Your task to perform on an android device: add a contact in the contacts app Image 0: 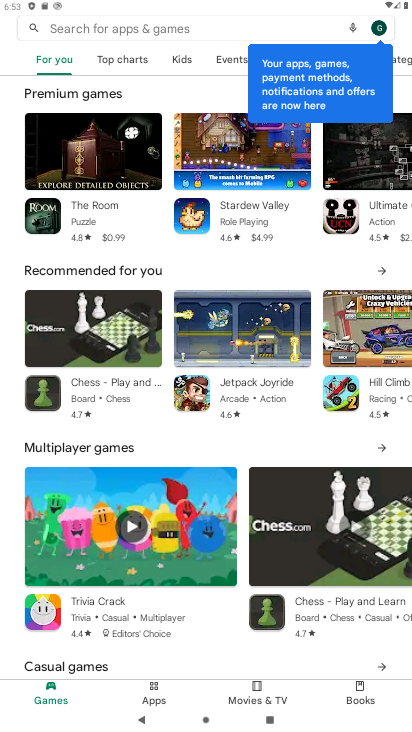
Step 0: press home button
Your task to perform on an android device: add a contact in the contacts app Image 1: 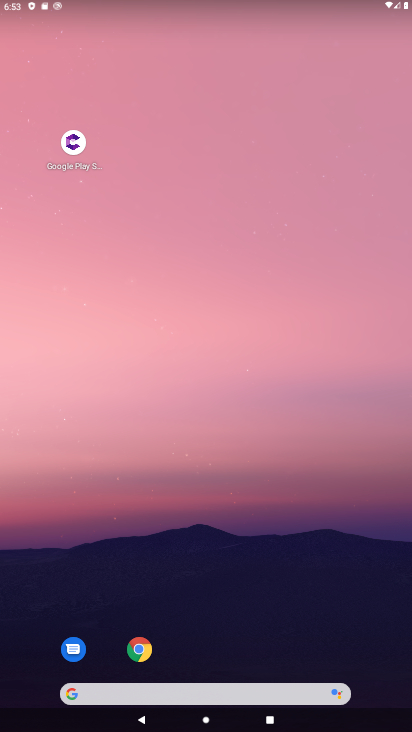
Step 1: drag from (199, 689) to (237, 171)
Your task to perform on an android device: add a contact in the contacts app Image 2: 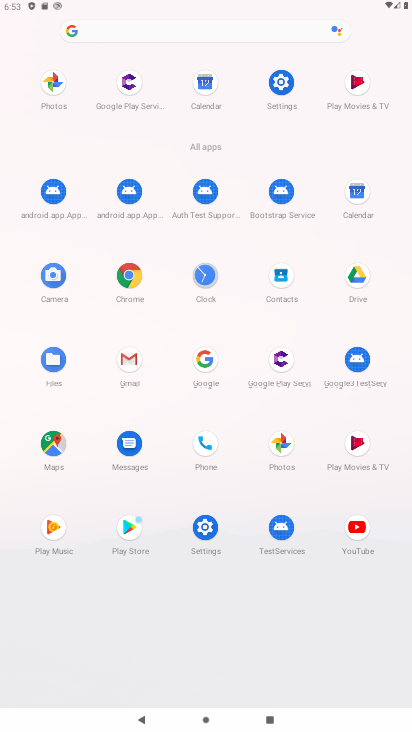
Step 2: click (282, 276)
Your task to perform on an android device: add a contact in the contacts app Image 3: 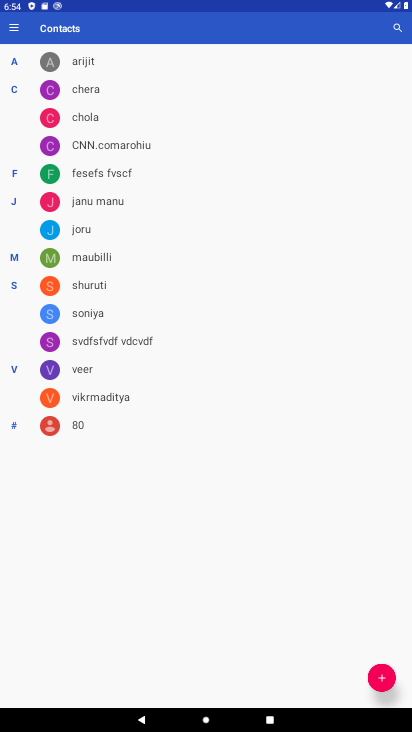
Step 3: click (383, 676)
Your task to perform on an android device: add a contact in the contacts app Image 4: 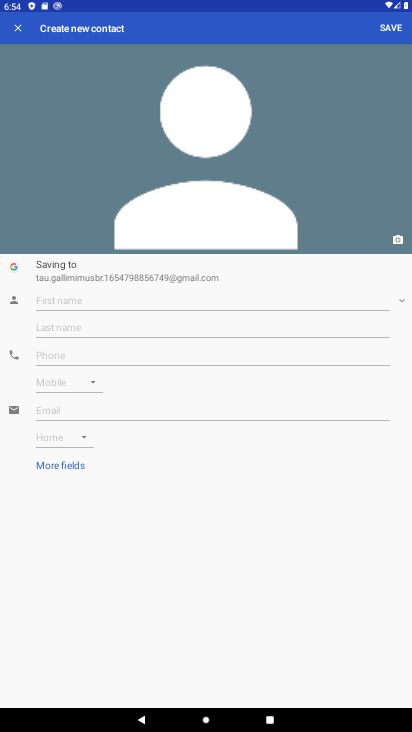
Step 4: click (262, 303)
Your task to perform on an android device: add a contact in the contacts app Image 5: 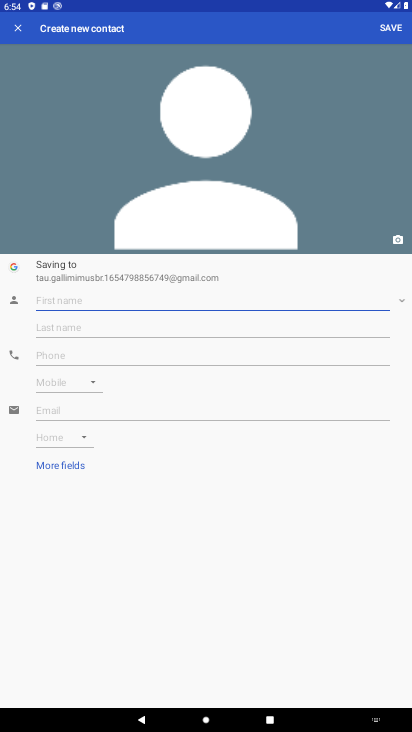
Step 5: type "Khudgarj"
Your task to perform on an android device: add a contact in the contacts app Image 6: 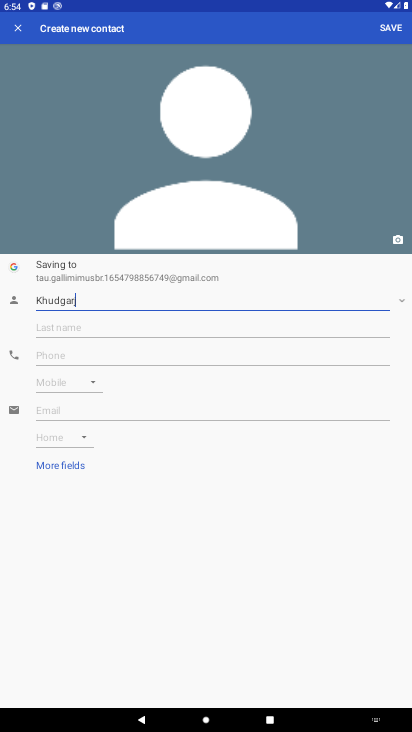
Step 6: click (110, 330)
Your task to perform on an android device: add a contact in the contacts app Image 7: 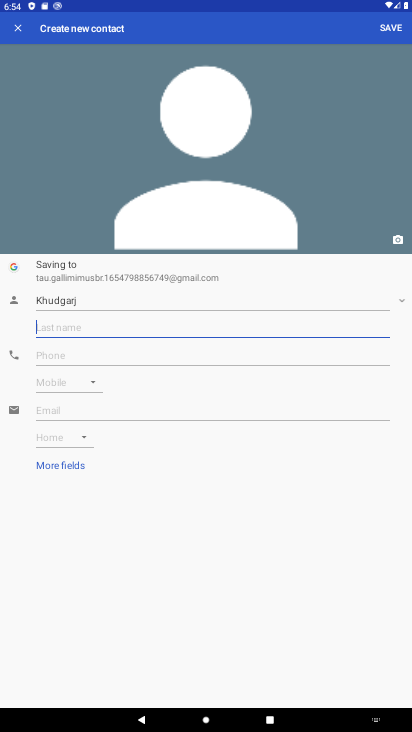
Step 7: type "Balma"
Your task to perform on an android device: add a contact in the contacts app Image 8: 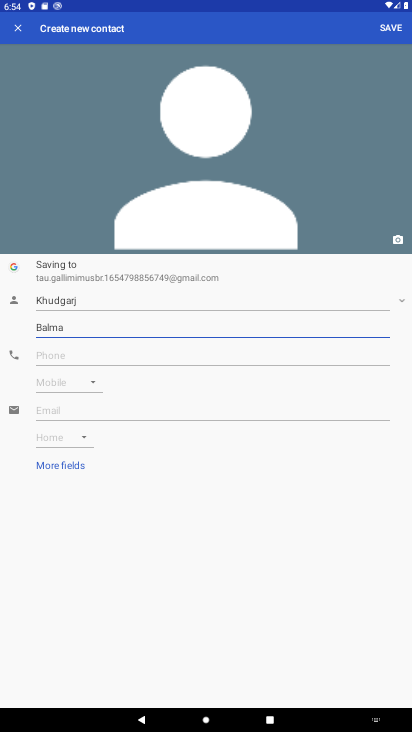
Step 8: click (243, 356)
Your task to perform on an android device: add a contact in the contacts app Image 9: 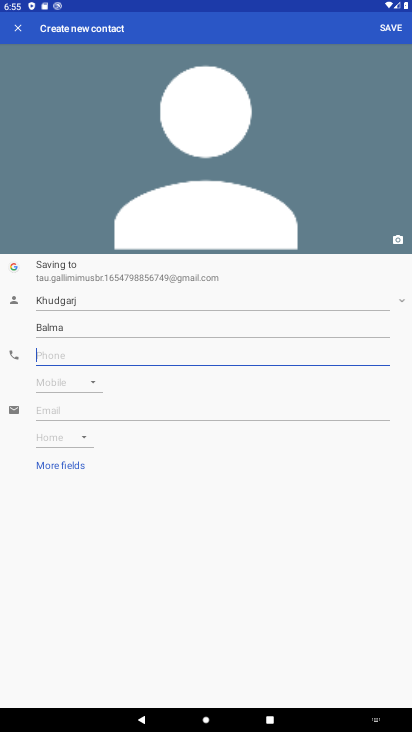
Step 9: type "09988776655"
Your task to perform on an android device: add a contact in the contacts app Image 10: 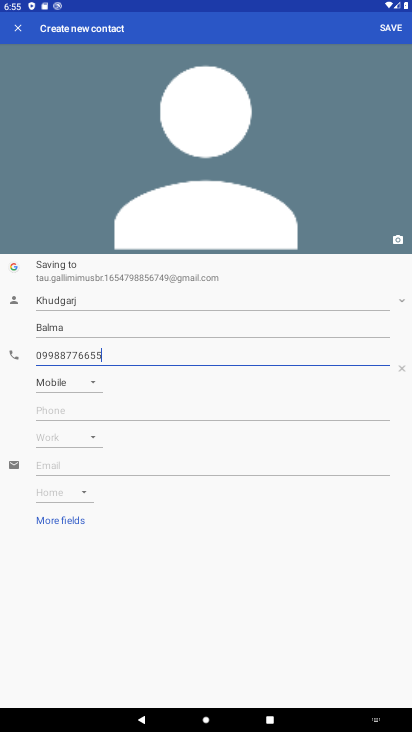
Step 10: click (385, 21)
Your task to perform on an android device: add a contact in the contacts app Image 11: 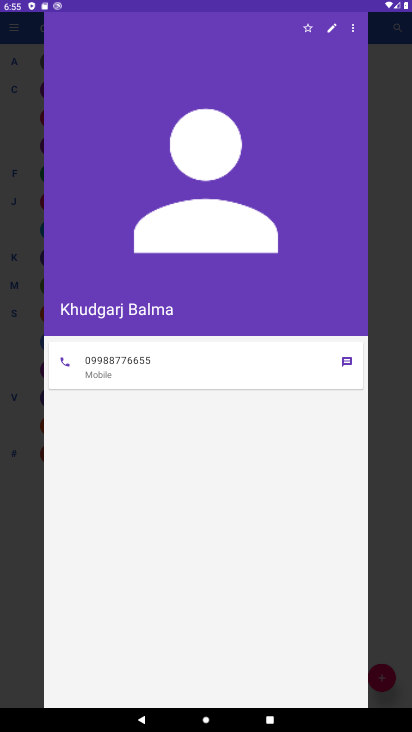
Step 11: task complete